Your task to perform on an android device: change the clock display to digital Image 0: 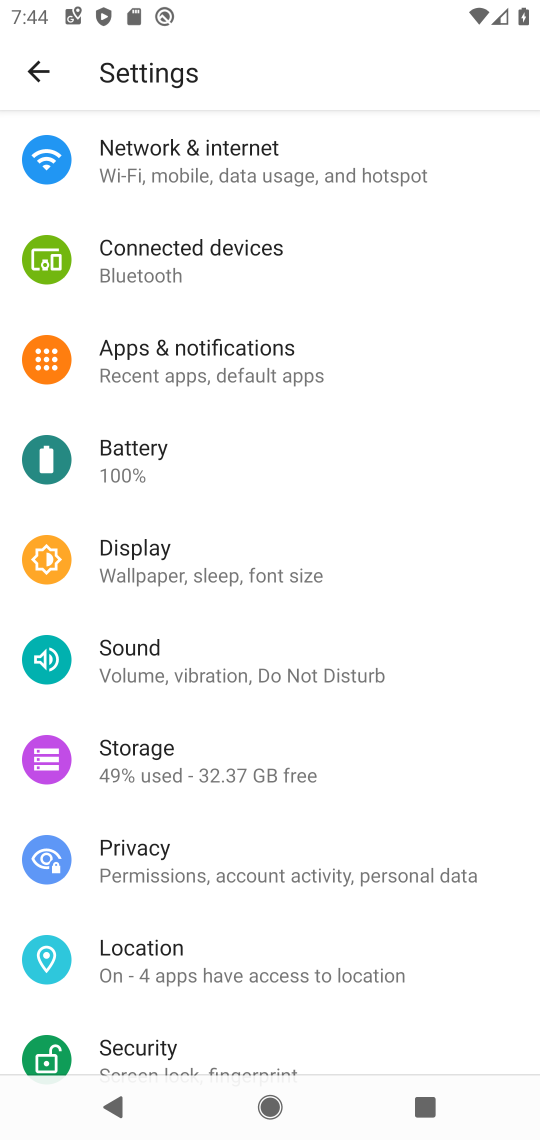
Step 0: press home button
Your task to perform on an android device: change the clock display to digital Image 1: 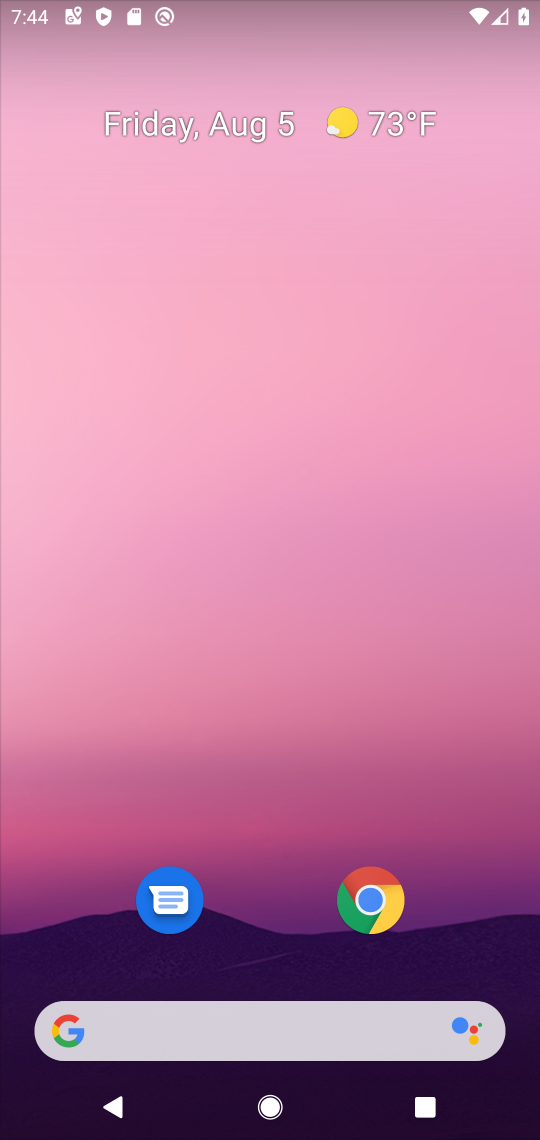
Step 1: drag from (272, 769) to (319, 263)
Your task to perform on an android device: change the clock display to digital Image 2: 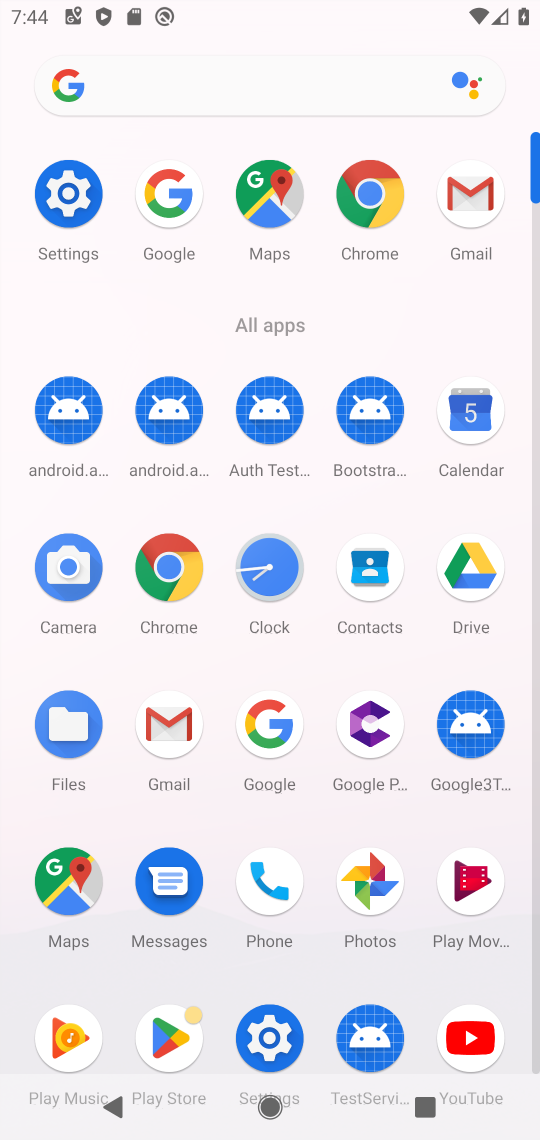
Step 2: click (271, 559)
Your task to perform on an android device: change the clock display to digital Image 3: 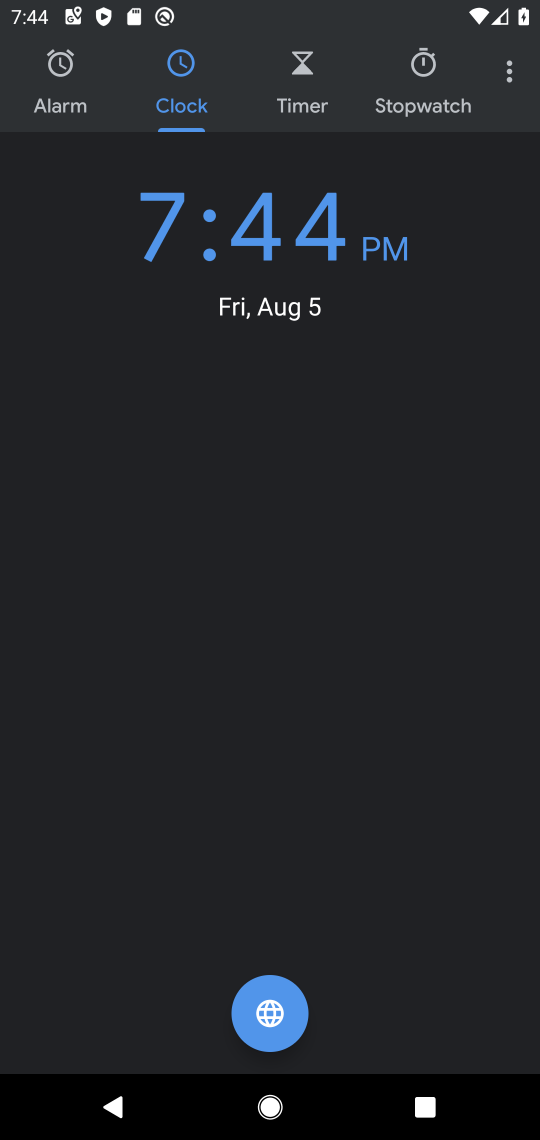
Step 3: click (502, 74)
Your task to perform on an android device: change the clock display to digital Image 4: 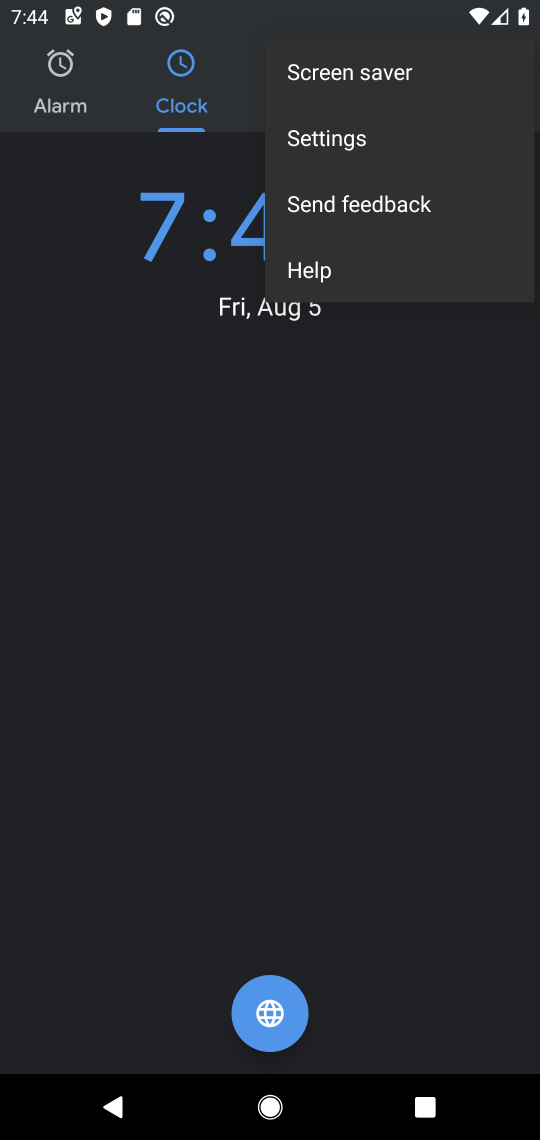
Step 4: click (345, 140)
Your task to perform on an android device: change the clock display to digital Image 5: 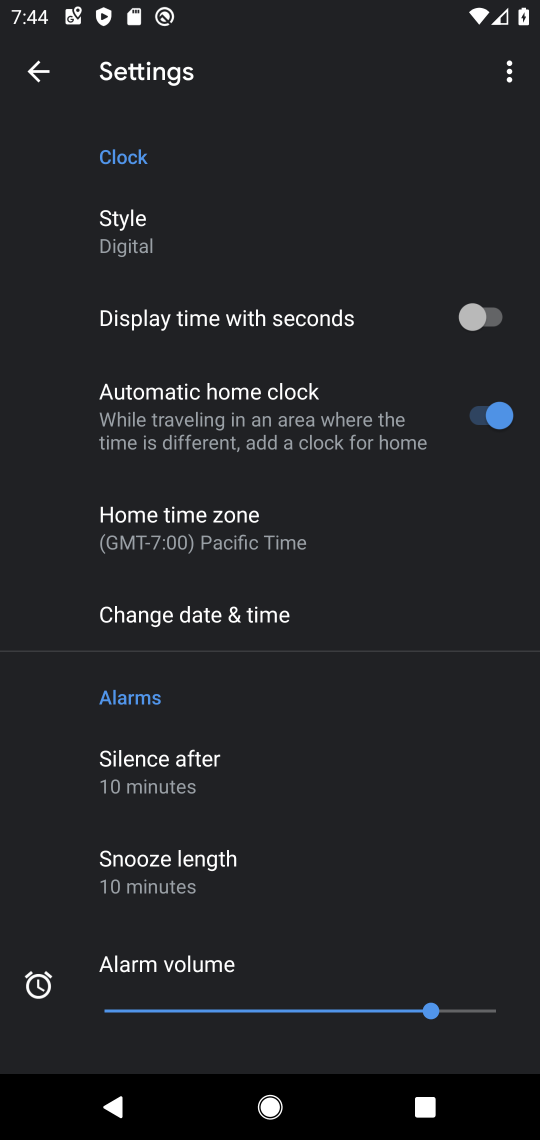
Step 5: task complete